Your task to perform on an android device: uninstall "Google Pay: Save, Pay, Manage" Image 0: 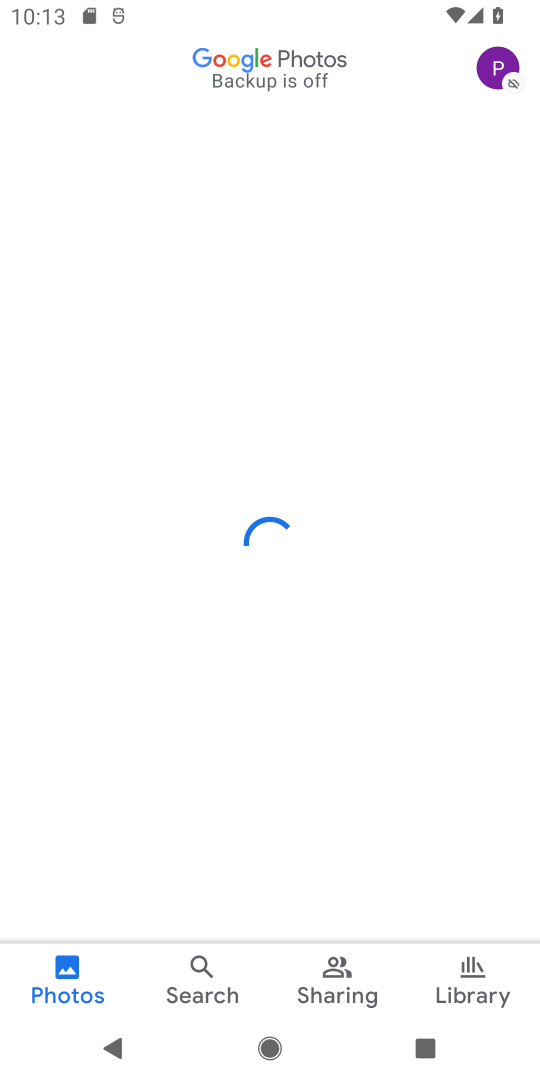
Step 0: press home button
Your task to perform on an android device: uninstall "Google Pay: Save, Pay, Manage" Image 1: 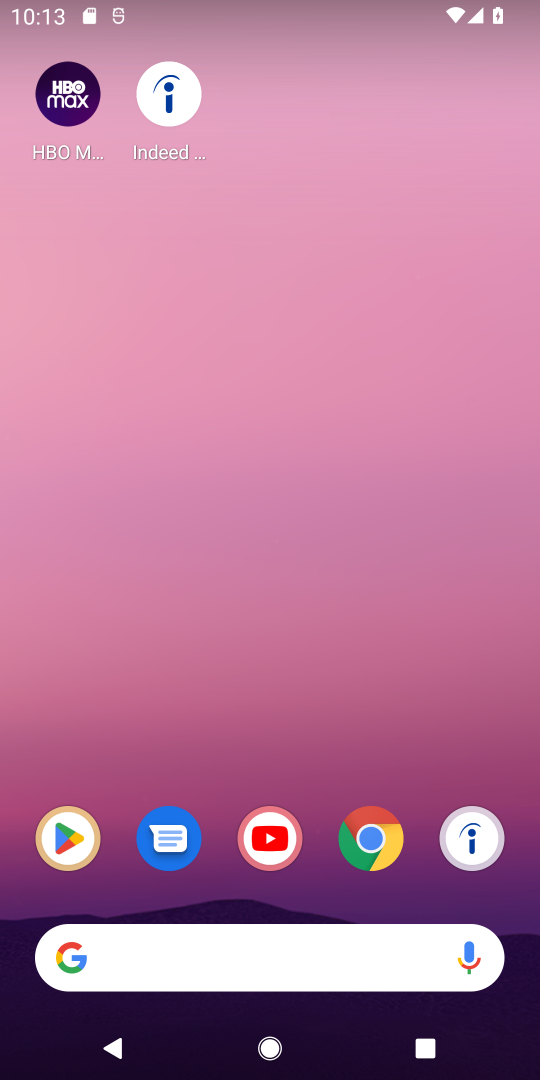
Step 1: press home button
Your task to perform on an android device: uninstall "Google Pay: Save, Pay, Manage" Image 2: 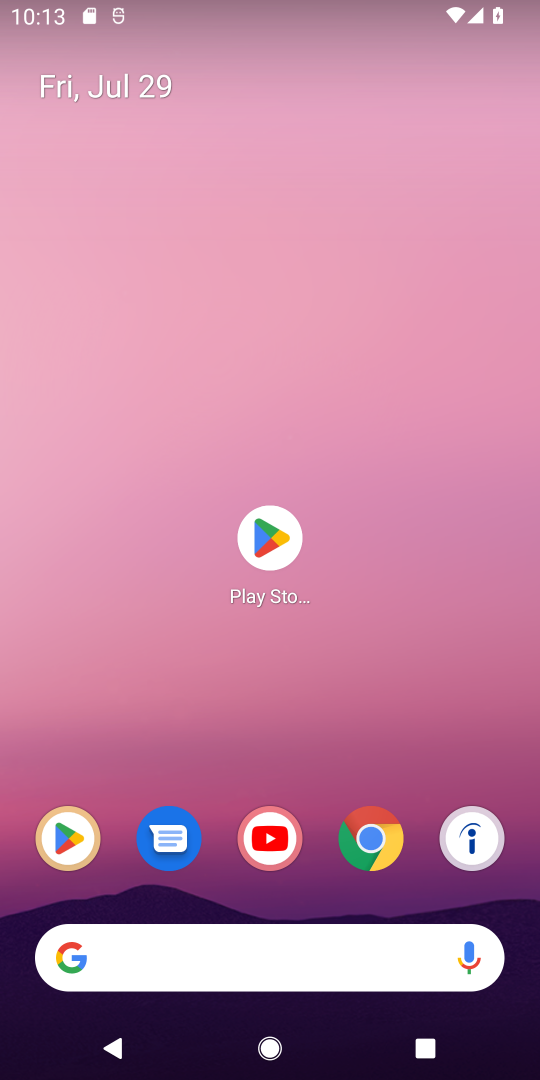
Step 2: click (266, 522)
Your task to perform on an android device: uninstall "Google Pay: Save, Pay, Manage" Image 3: 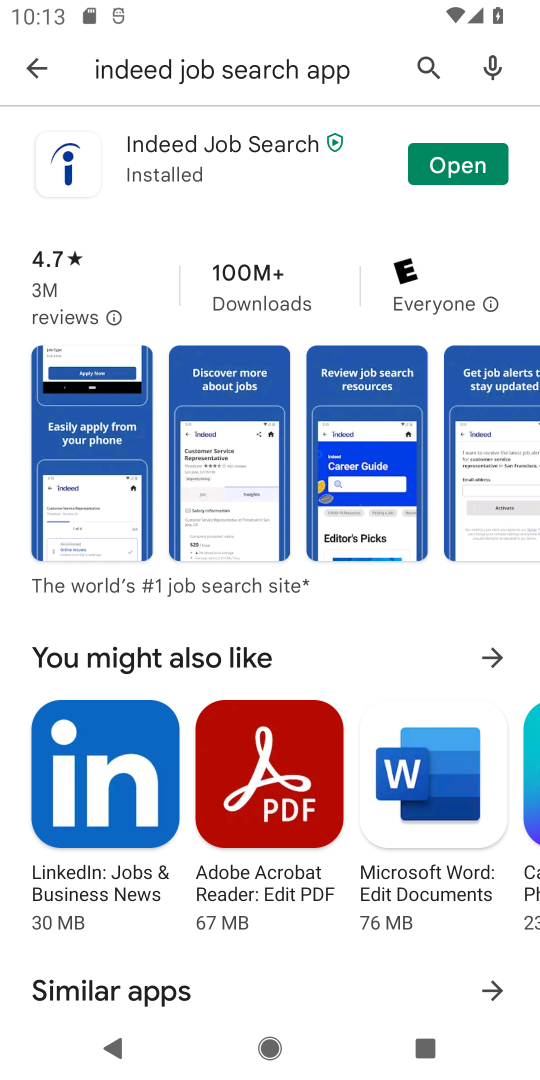
Step 3: click (419, 67)
Your task to perform on an android device: uninstall "Google Pay: Save, Pay, Manage" Image 4: 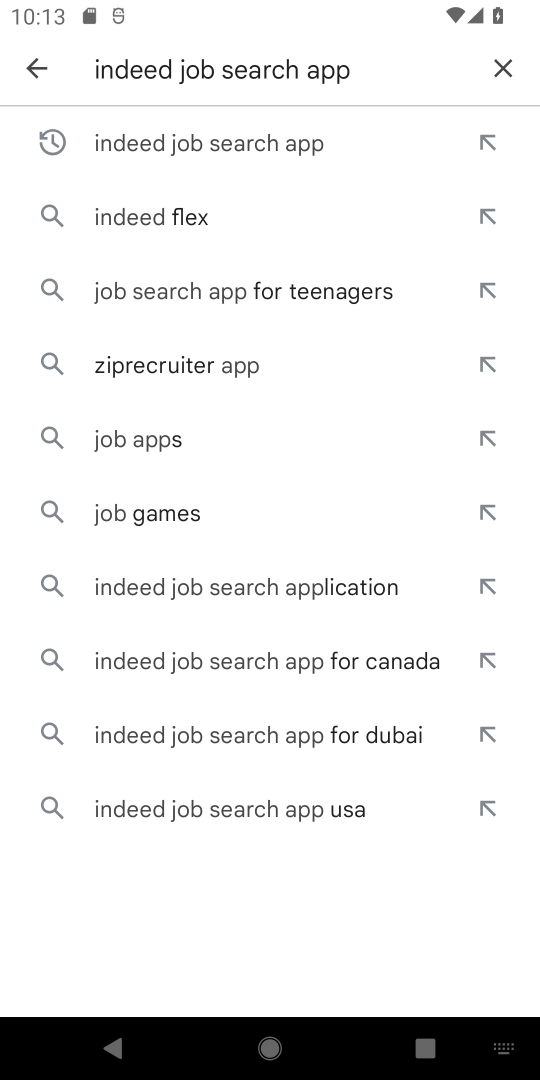
Step 4: click (496, 64)
Your task to perform on an android device: uninstall "Google Pay: Save, Pay, Manage" Image 5: 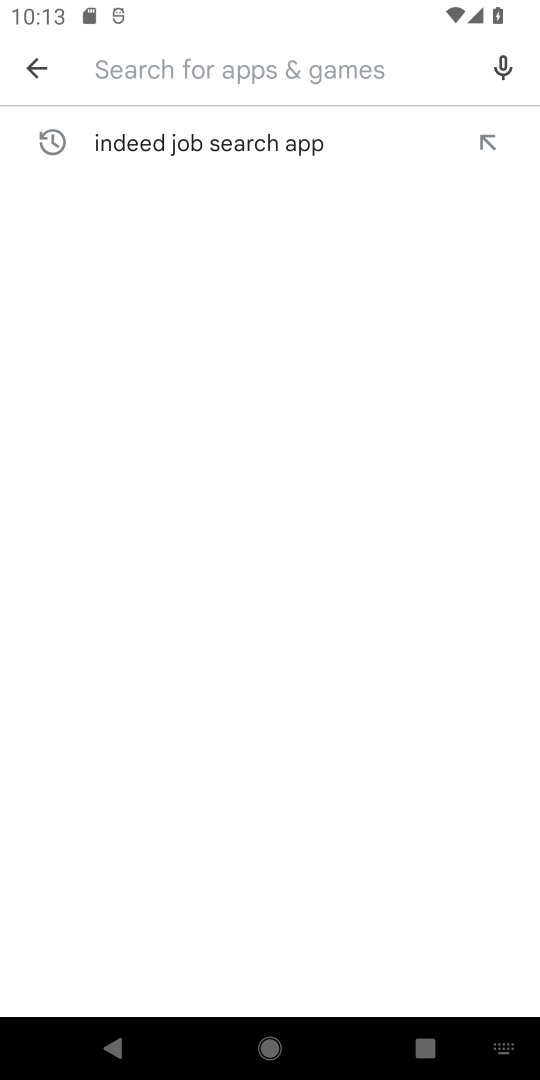
Step 5: type "Google Pay: Save, Pay, Manage"
Your task to perform on an android device: uninstall "Google Pay: Save, Pay, Manage" Image 6: 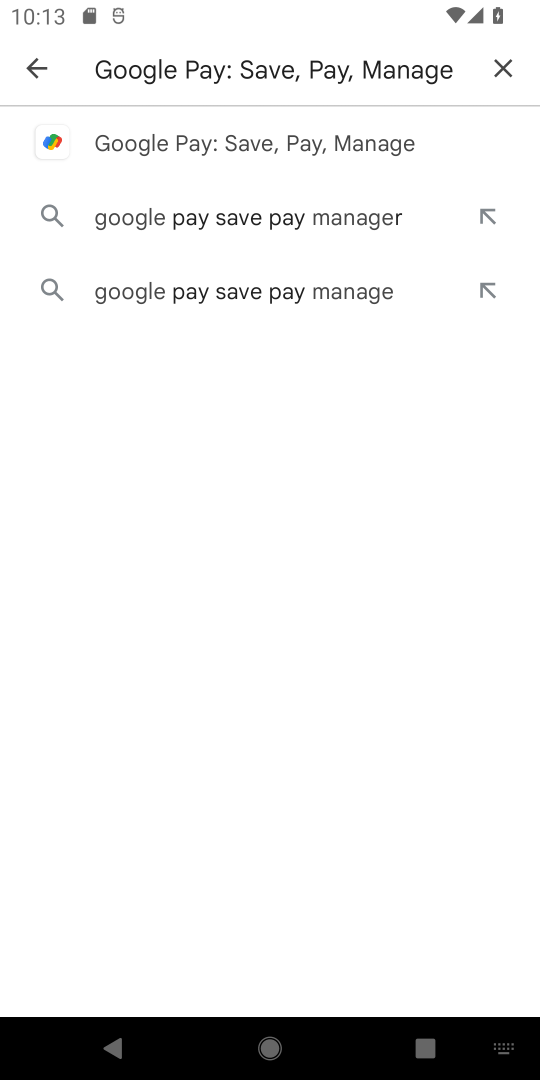
Step 6: click (360, 138)
Your task to perform on an android device: uninstall "Google Pay: Save, Pay, Manage" Image 7: 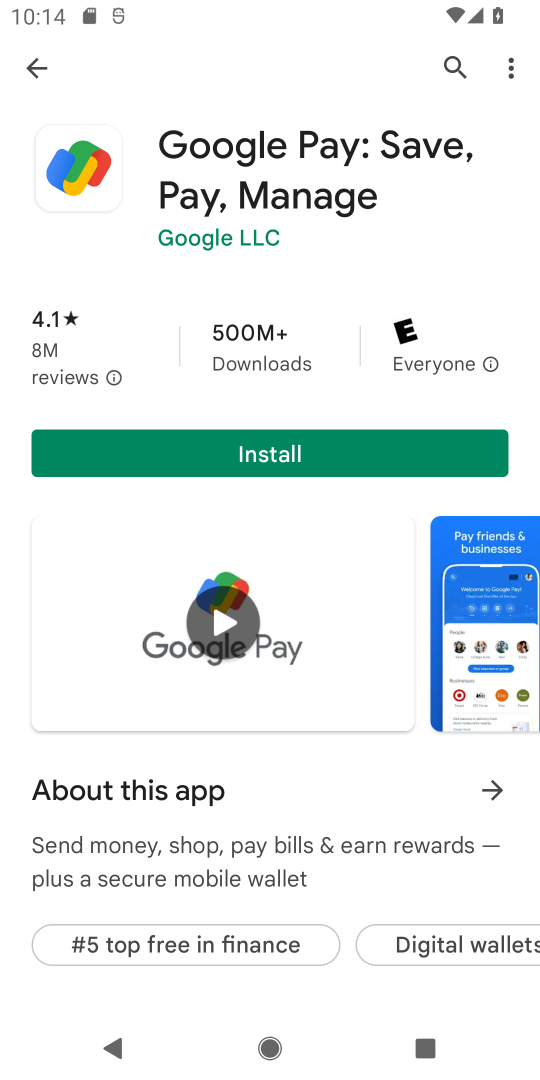
Step 7: task complete